Your task to perform on an android device: Open Wikipedia Image 0: 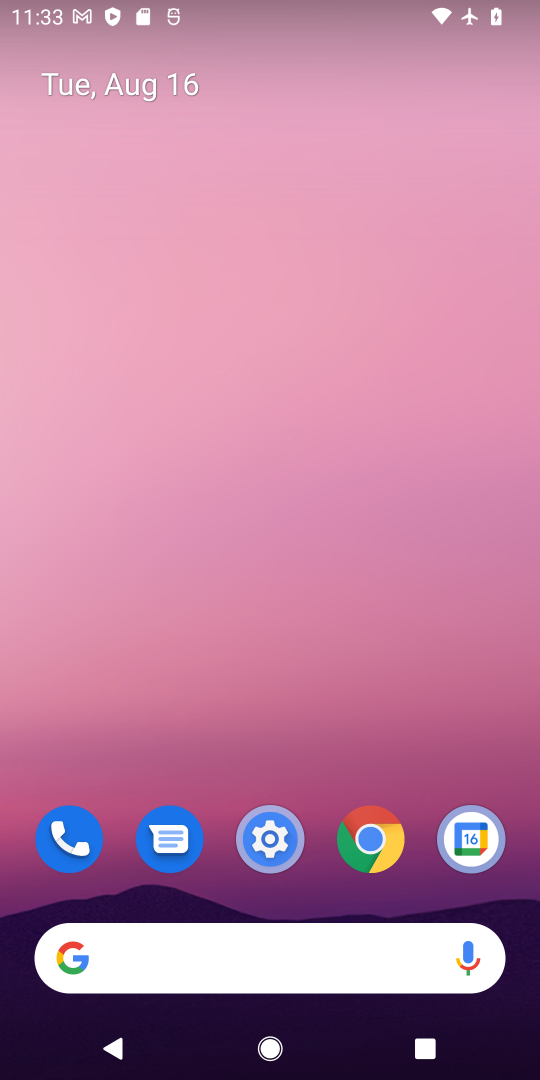
Step 0: click (373, 843)
Your task to perform on an android device: Open Wikipedia Image 1: 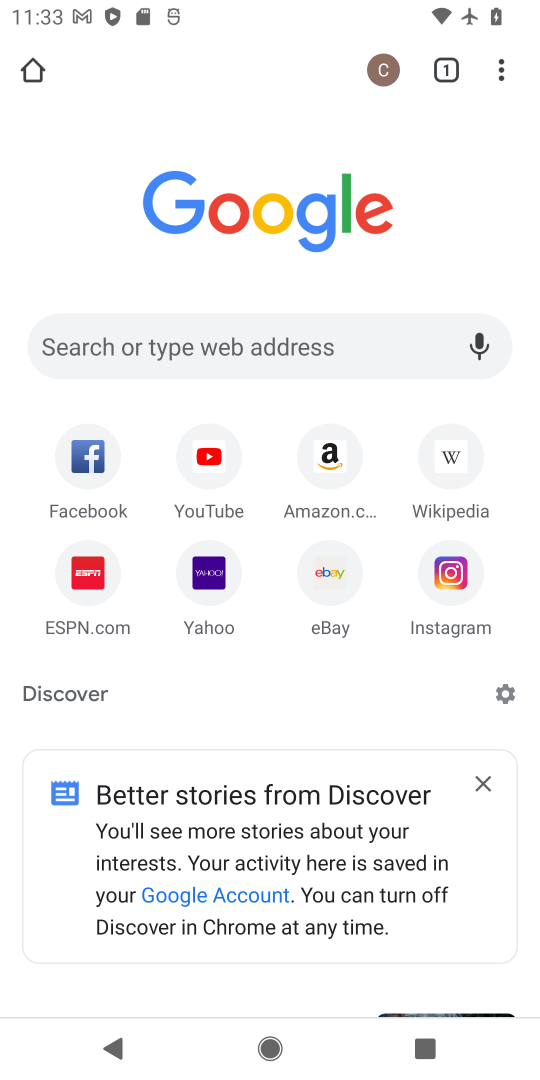
Step 1: click (442, 480)
Your task to perform on an android device: Open Wikipedia Image 2: 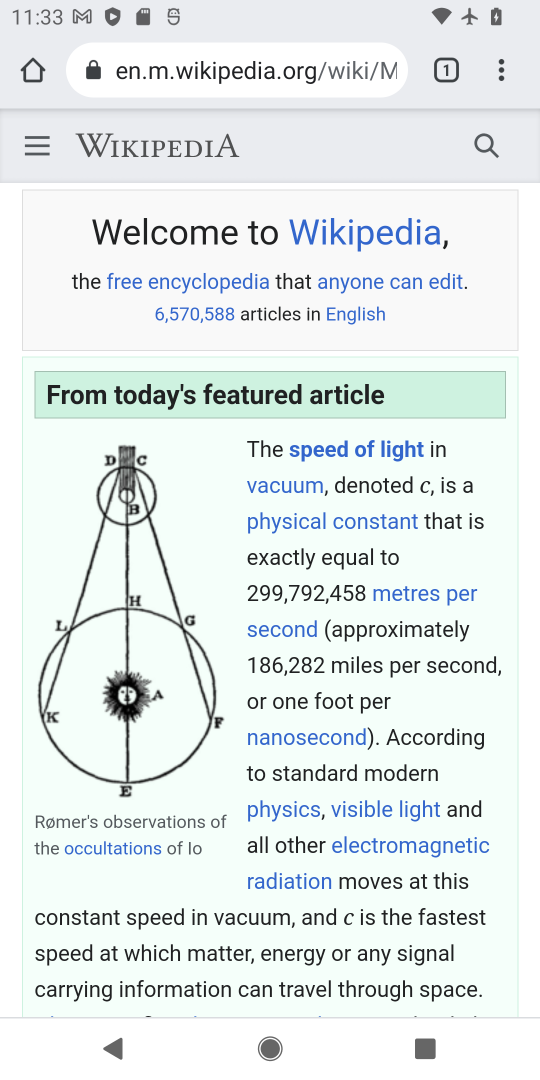
Step 2: task complete